Your task to perform on an android device: move an email to a new category in the gmail app Image 0: 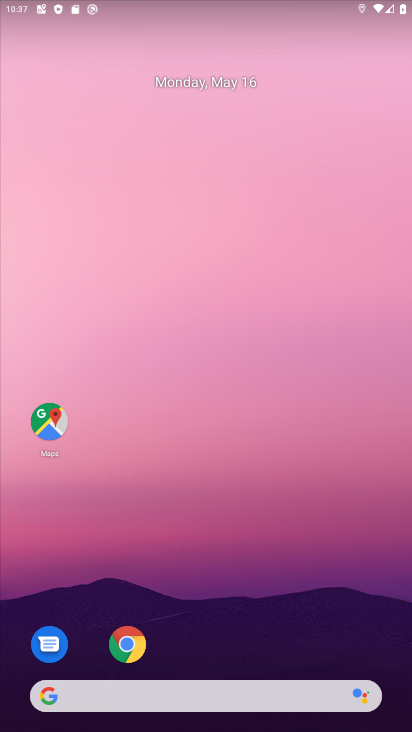
Step 0: drag from (205, 729) to (214, 151)
Your task to perform on an android device: move an email to a new category in the gmail app Image 1: 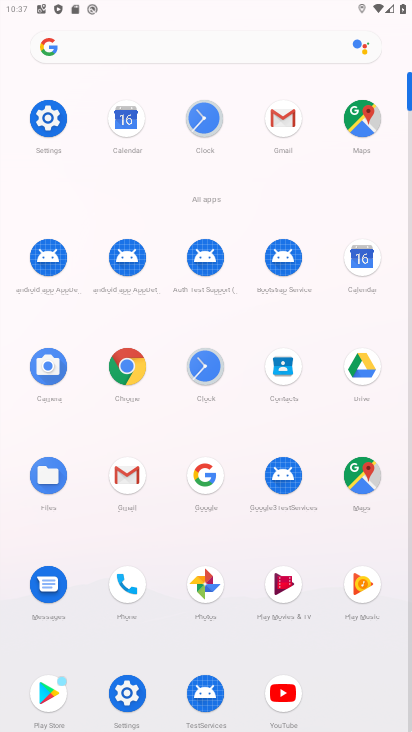
Step 1: click (131, 478)
Your task to perform on an android device: move an email to a new category in the gmail app Image 2: 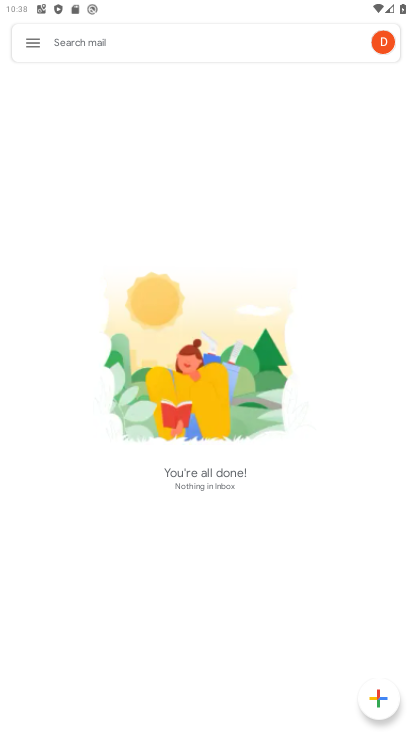
Step 2: task complete